Your task to perform on an android device: Go to network settings Image 0: 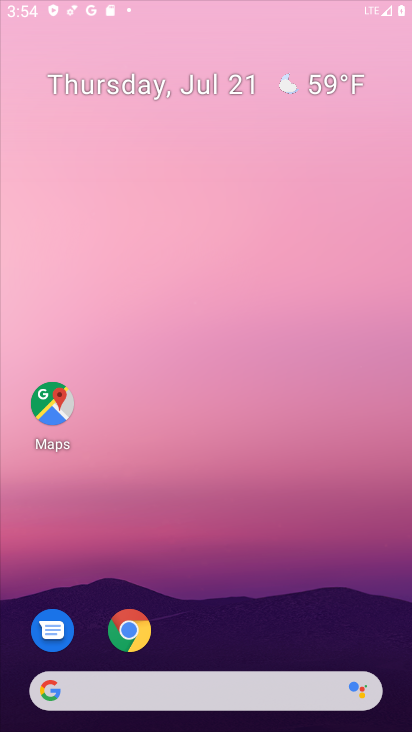
Step 0: press back button
Your task to perform on an android device: Go to network settings Image 1: 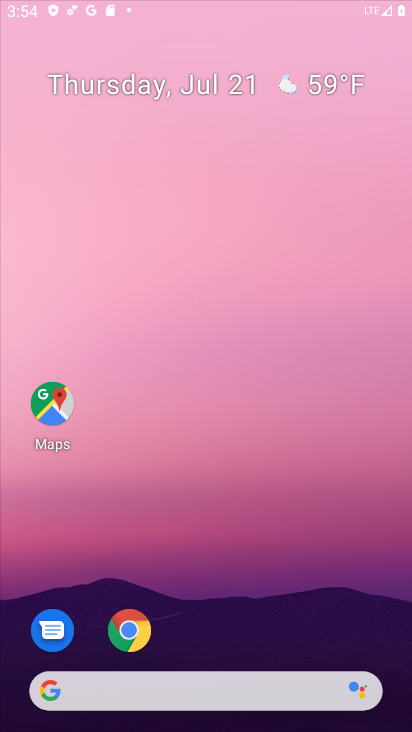
Step 1: press home button
Your task to perform on an android device: Go to network settings Image 2: 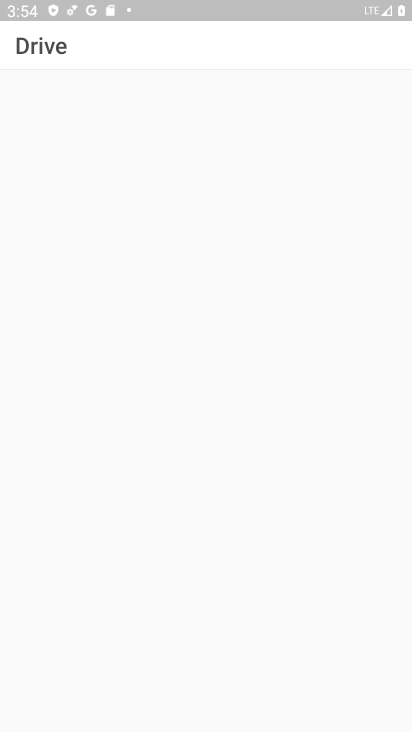
Step 2: click (200, 411)
Your task to perform on an android device: Go to network settings Image 3: 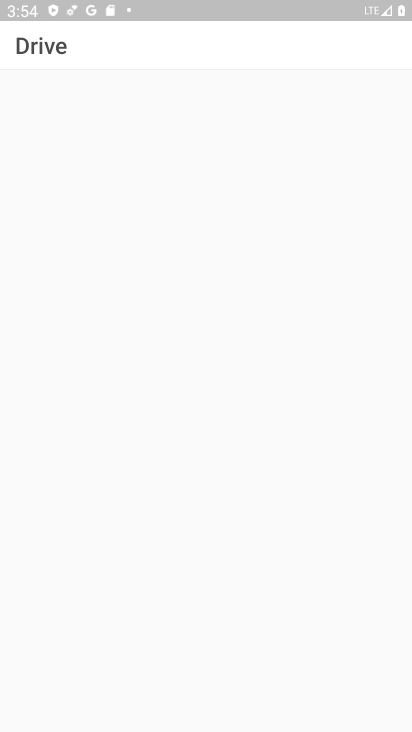
Step 3: press back button
Your task to perform on an android device: Go to network settings Image 4: 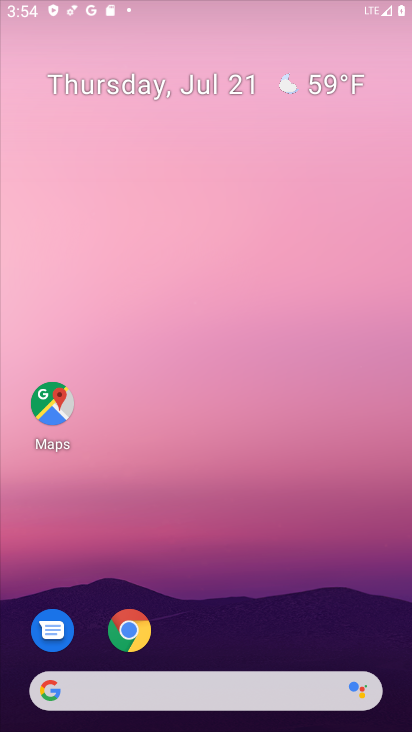
Step 4: press back button
Your task to perform on an android device: Go to network settings Image 5: 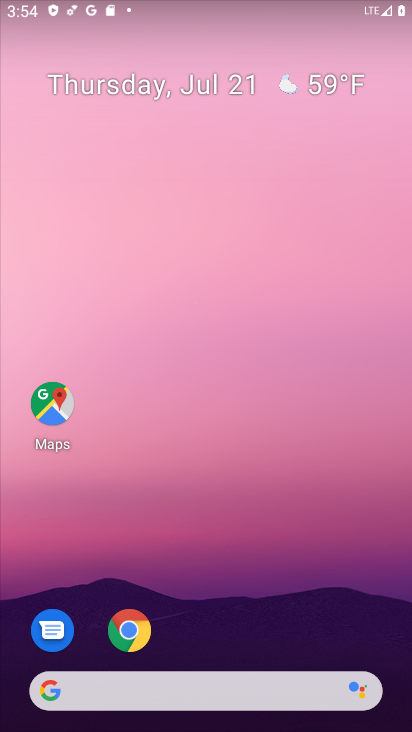
Step 5: drag from (259, 615) to (212, 93)
Your task to perform on an android device: Go to network settings Image 6: 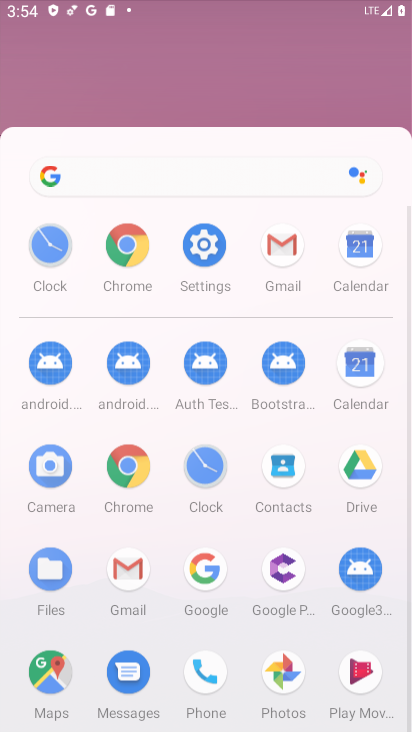
Step 6: drag from (165, 195) to (144, 54)
Your task to perform on an android device: Go to network settings Image 7: 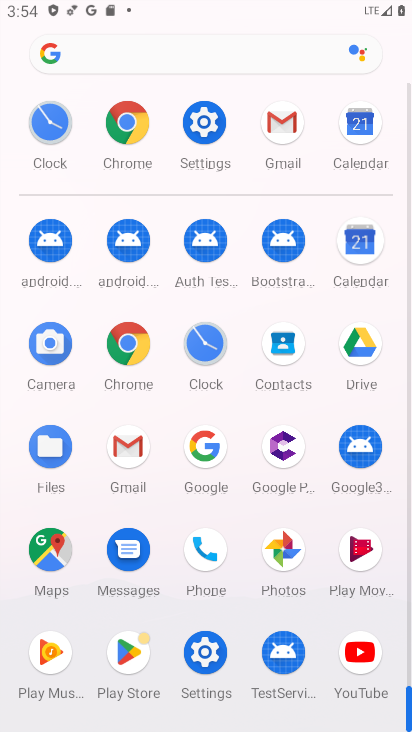
Step 7: drag from (177, 473) to (158, 118)
Your task to perform on an android device: Go to network settings Image 8: 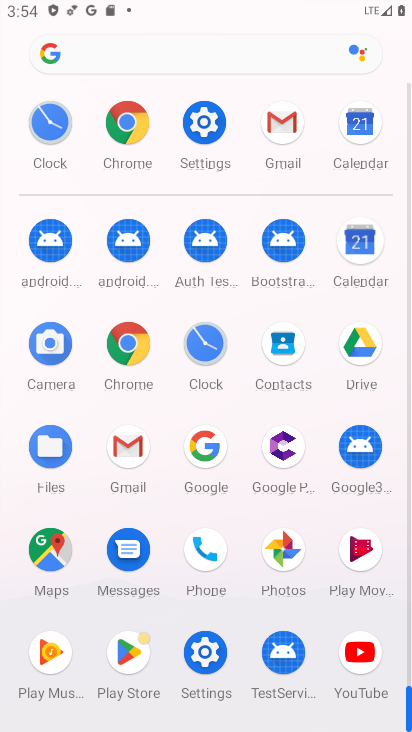
Step 8: click (203, 111)
Your task to perform on an android device: Go to network settings Image 9: 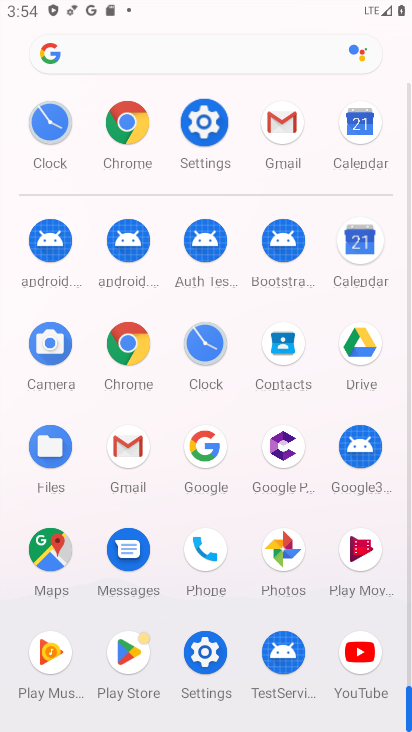
Step 9: click (204, 112)
Your task to perform on an android device: Go to network settings Image 10: 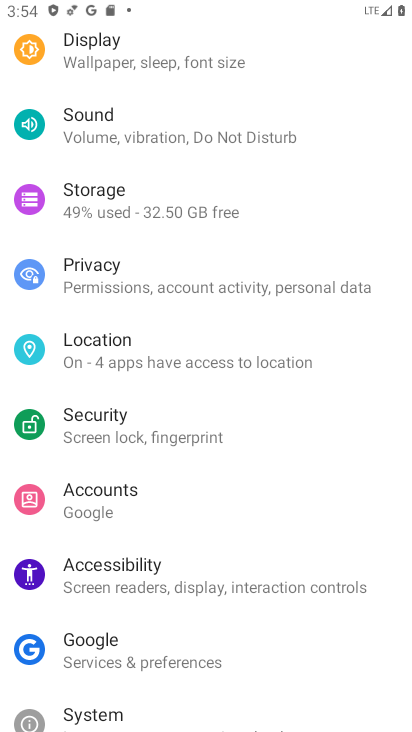
Step 10: drag from (155, 97) to (186, 524)
Your task to perform on an android device: Go to network settings Image 11: 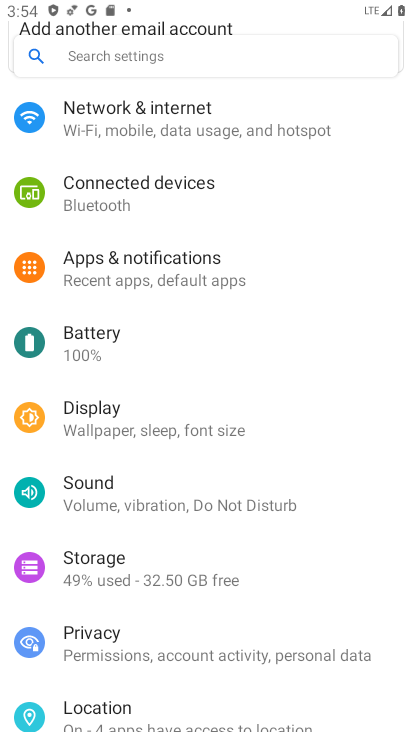
Step 11: drag from (117, 177) to (162, 513)
Your task to perform on an android device: Go to network settings Image 12: 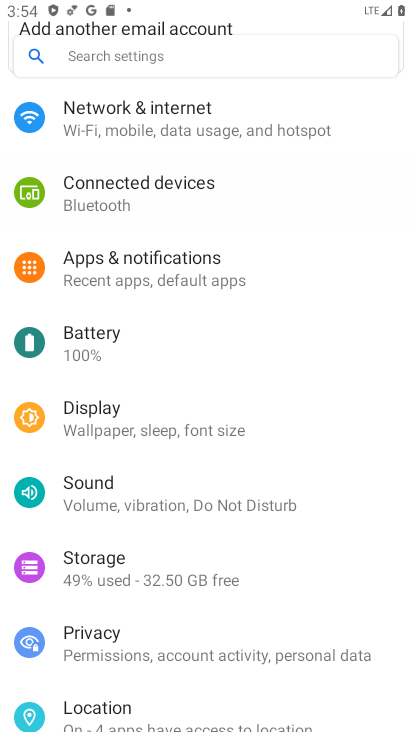
Step 12: drag from (110, 175) to (158, 511)
Your task to perform on an android device: Go to network settings Image 13: 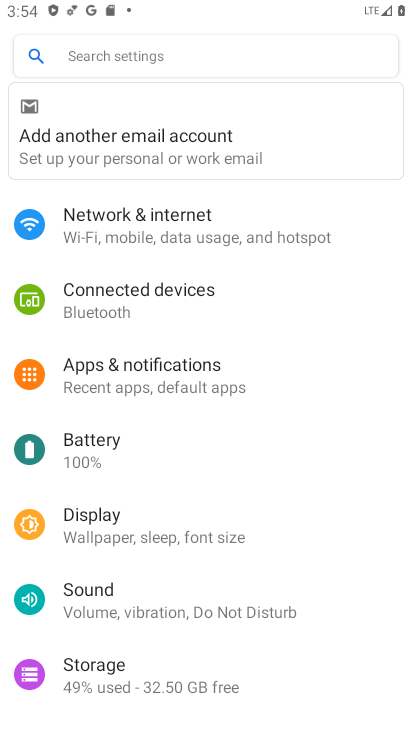
Step 13: click (127, 122)
Your task to perform on an android device: Go to network settings Image 14: 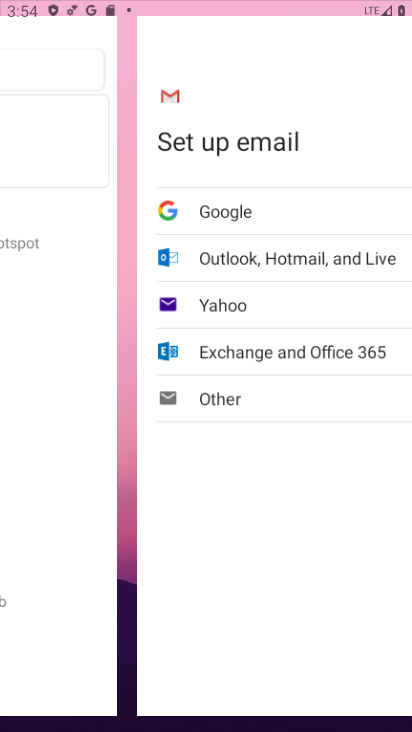
Step 14: click (127, 227)
Your task to perform on an android device: Go to network settings Image 15: 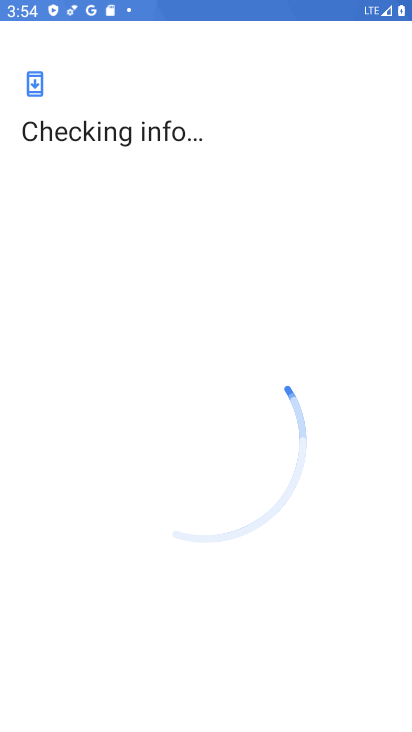
Step 15: press back button
Your task to perform on an android device: Go to network settings Image 16: 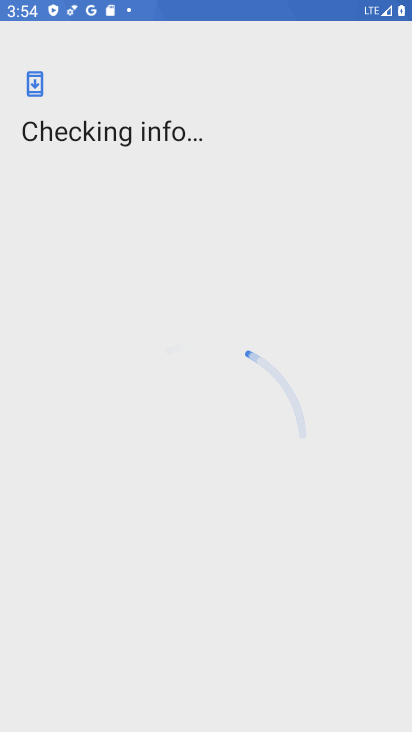
Step 16: press back button
Your task to perform on an android device: Go to network settings Image 17: 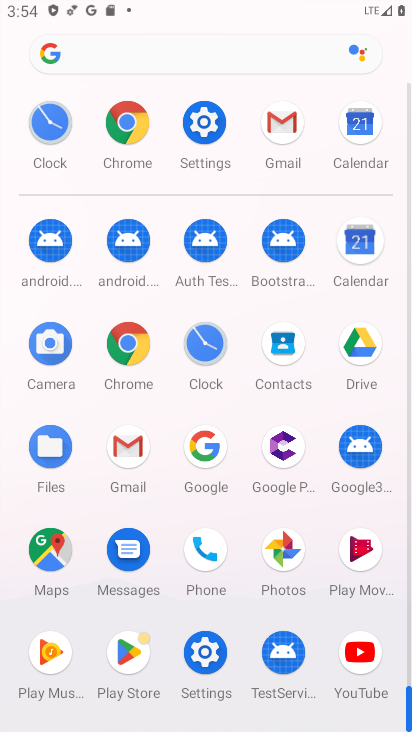
Step 17: press back button
Your task to perform on an android device: Go to network settings Image 18: 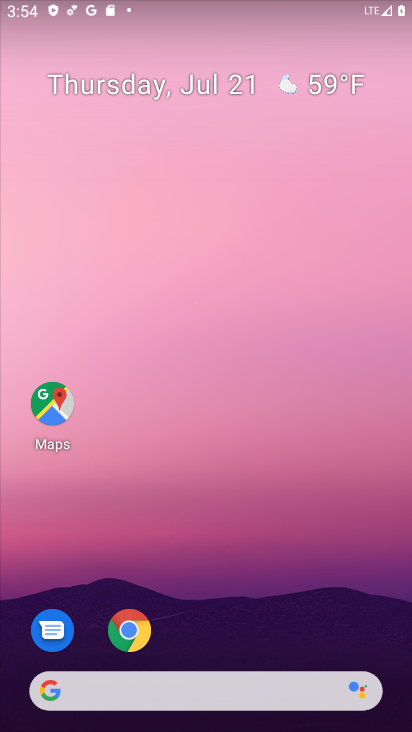
Step 18: click (208, 122)
Your task to perform on an android device: Go to network settings Image 19: 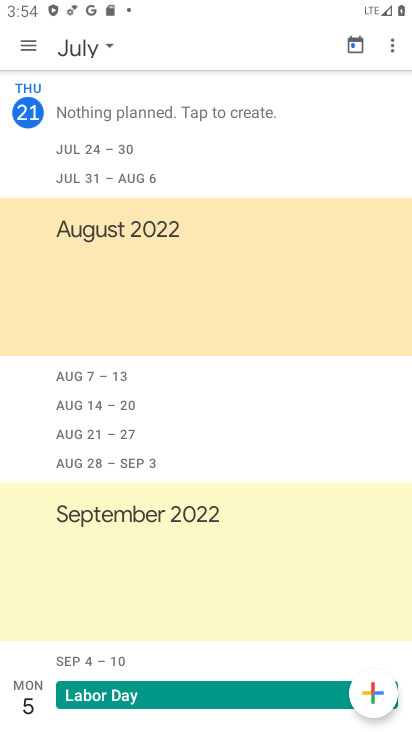
Step 19: task complete